Your task to perform on an android device: Find coffee shops on Maps Image 0: 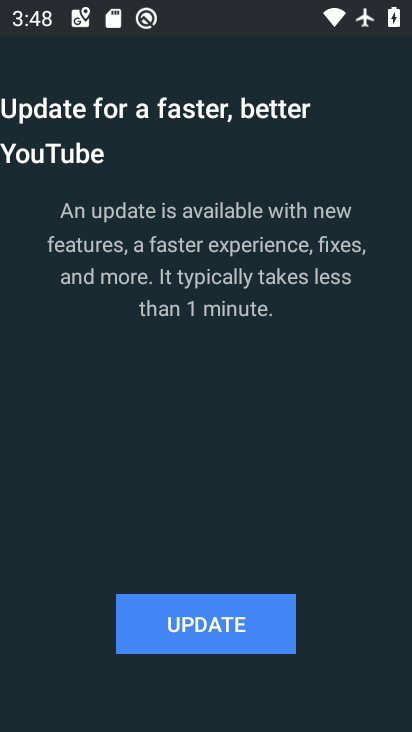
Step 0: press home button
Your task to perform on an android device: Find coffee shops on Maps Image 1: 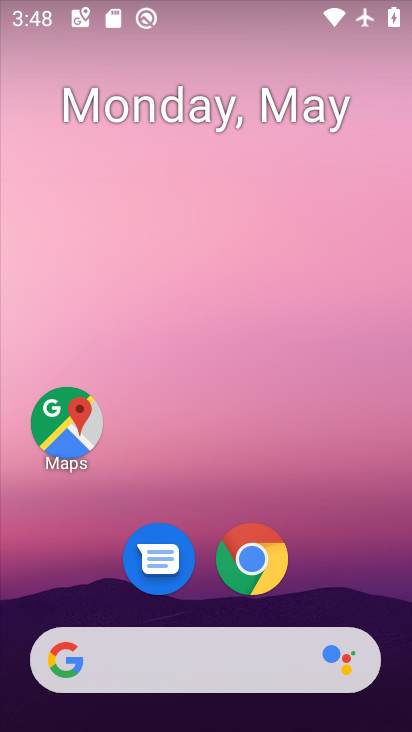
Step 1: click (61, 410)
Your task to perform on an android device: Find coffee shops on Maps Image 2: 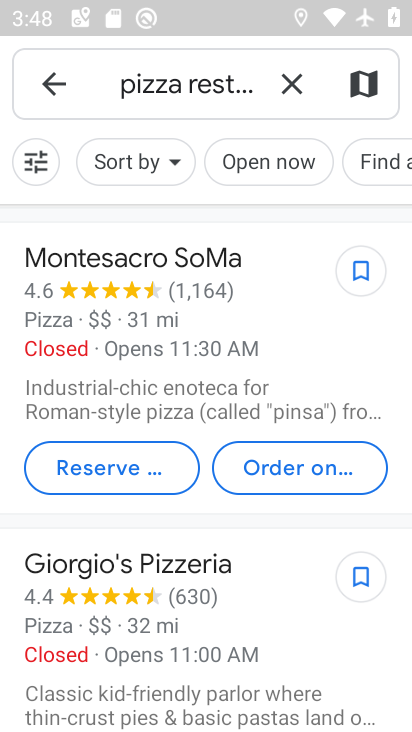
Step 2: click (292, 87)
Your task to perform on an android device: Find coffee shops on Maps Image 3: 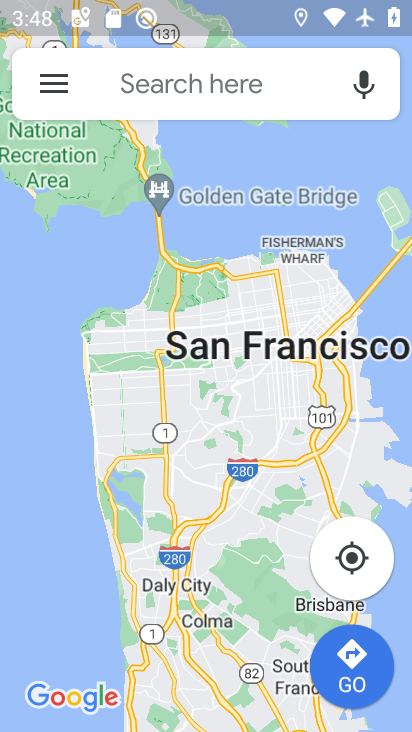
Step 3: click (182, 84)
Your task to perform on an android device: Find coffee shops on Maps Image 4: 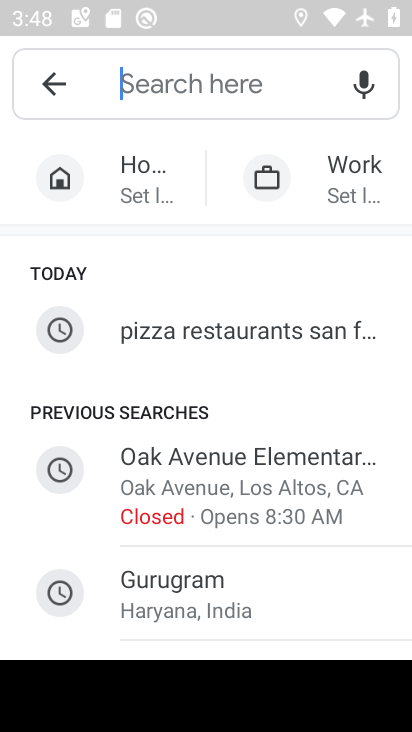
Step 4: click (191, 89)
Your task to perform on an android device: Find coffee shops on Maps Image 5: 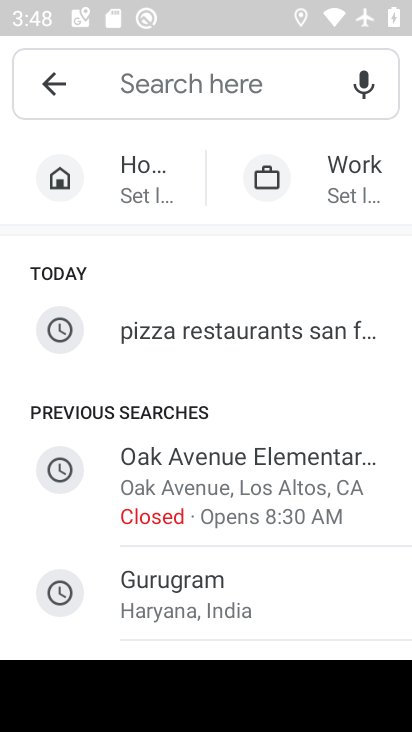
Step 5: drag from (239, 528) to (270, 308)
Your task to perform on an android device: Find coffee shops on Maps Image 6: 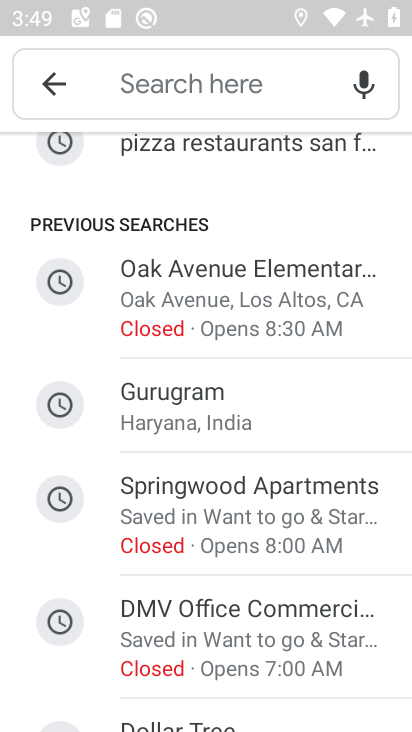
Step 6: type "coffee shops"
Your task to perform on an android device: Find coffee shops on Maps Image 7: 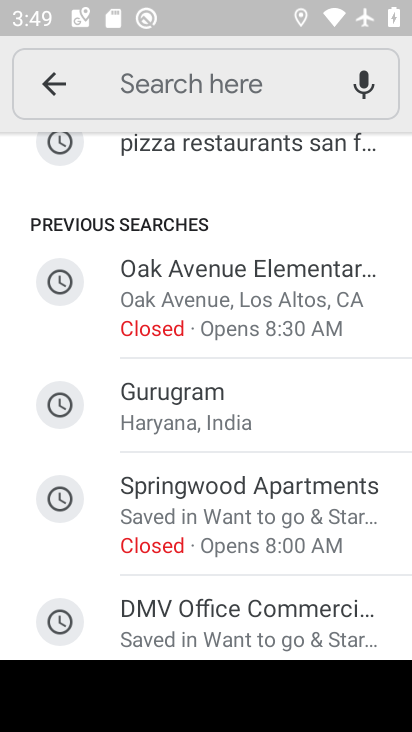
Step 7: drag from (314, 211) to (270, 596)
Your task to perform on an android device: Find coffee shops on Maps Image 8: 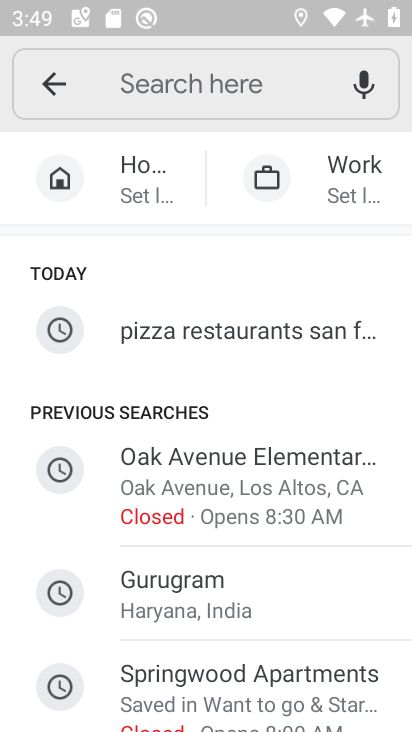
Step 8: click (157, 87)
Your task to perform on an android device: Find coffee shops on Maps Image 9: 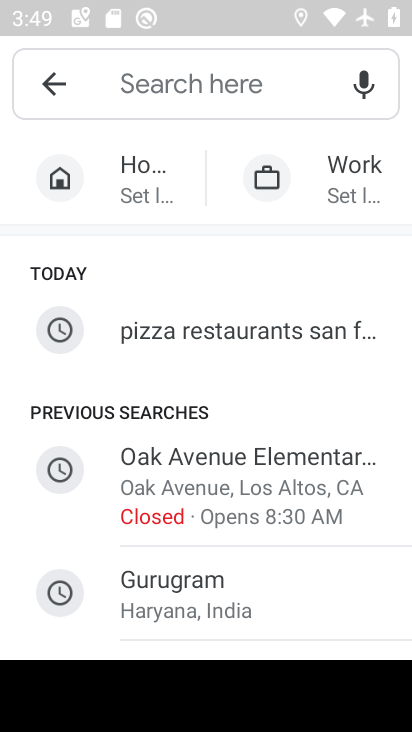
Step 9: type "coffee shops"
Your task to perform on an android device: Find coffee shops on Maps Image 10: 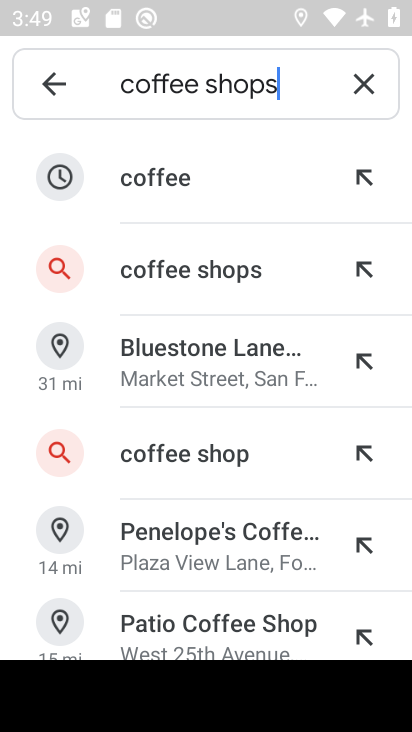
Step 10: click (282, 273)
Your task to perform on an android device: Find coffee shops on Maps Image 11: 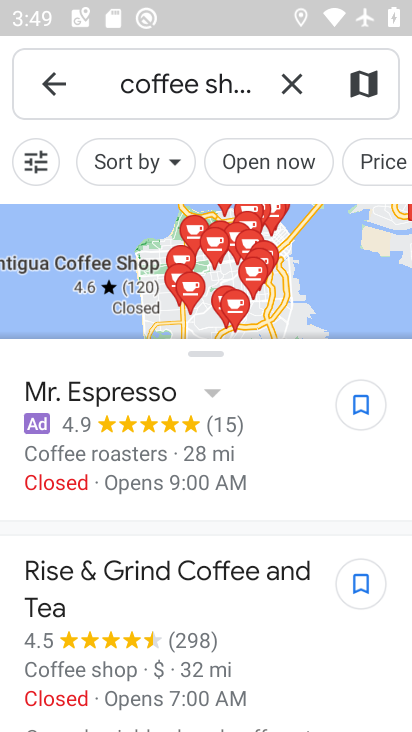
Step 11: task complete